Your task to perform on an android device: find photos in the google photos app Image 0: 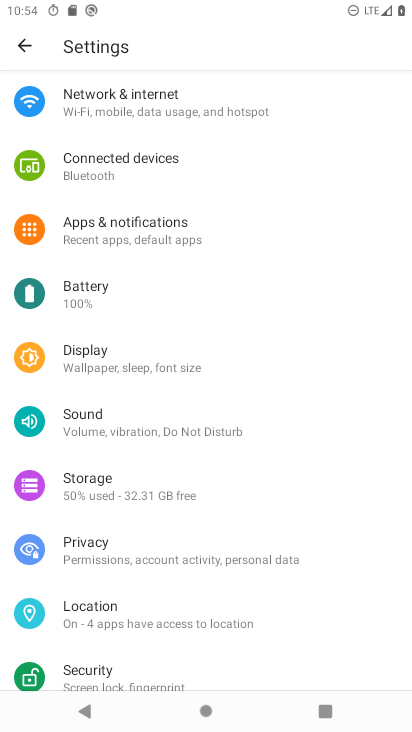
Step 0: press home button
Your task to perform on an android device: find photos in the google photos app Image 1: 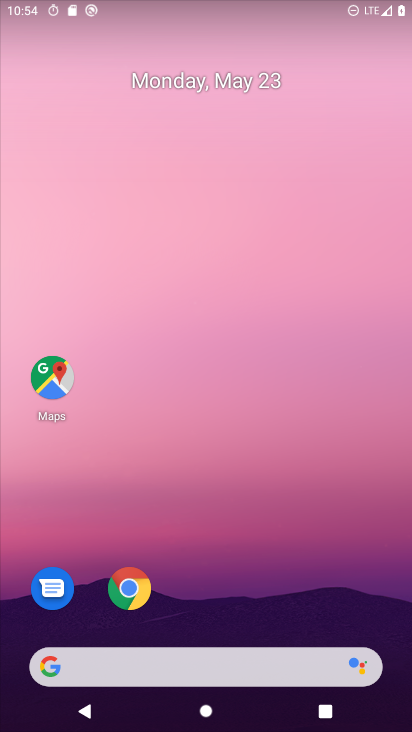
Step 1: drag from (395, 708) to (363, 136)
Your task to perform on an android device: find photos in the google photos app Image 2: 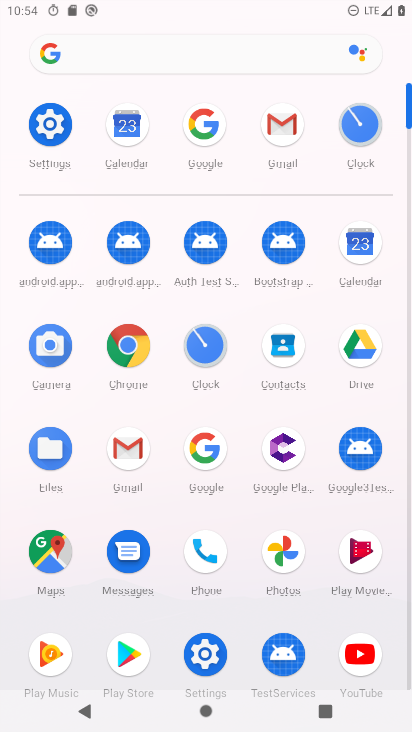
Step 2: click (273, 544)
Your task to perform on an android device: find photos in the google photos app Image 3: 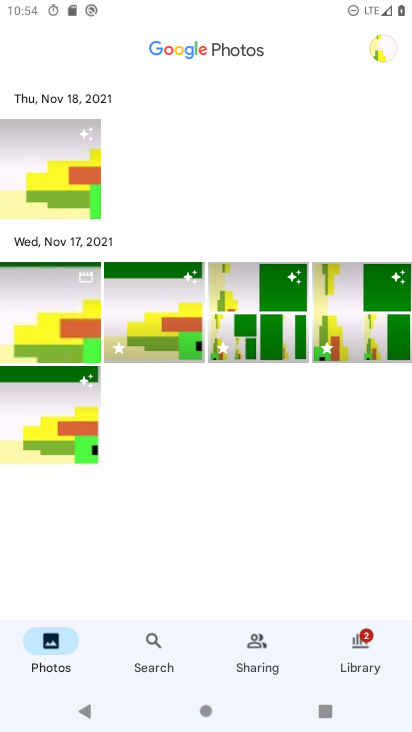
Step 3: click (79, 168)
Your task to perform on an android device: find photos in the google photos app Image 4: 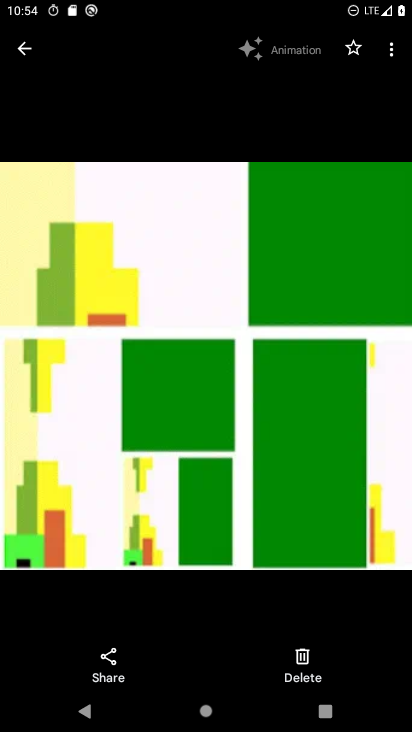
Step 4: click (32, 50)
Your task to perform on an android device: find photos in the google photos app Image 5: 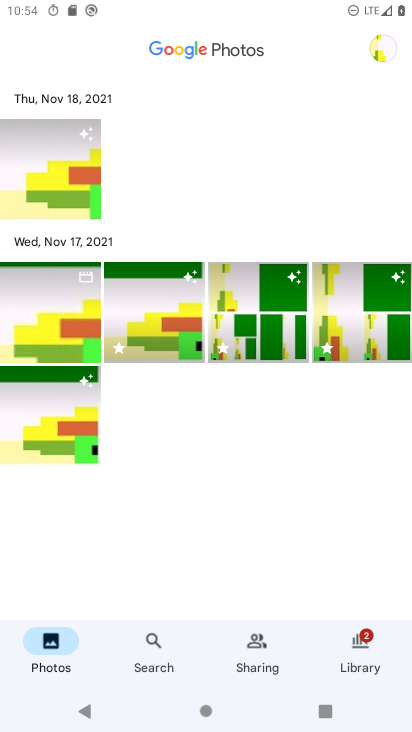
Step 5: task complete